Your task to perform on an android device: turn smart compose on in the gmail app Image 0: 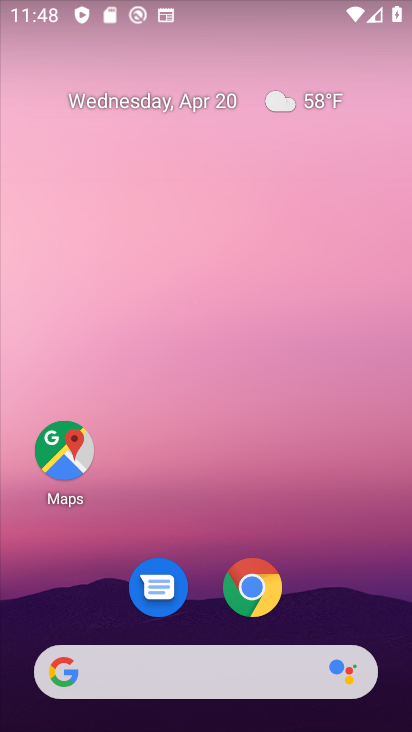
Step 0: drag from (209, 629) to (203, 41)
Your task to perform on an android device: turn smart compose on in the gmail app Image 1: 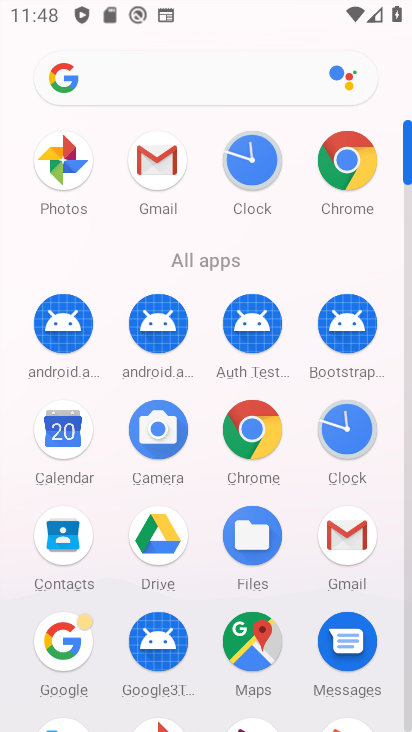
Step 1: click (343, 547)
Your task to perform on an android device: turn smart compose on in the gmail app Image 2: 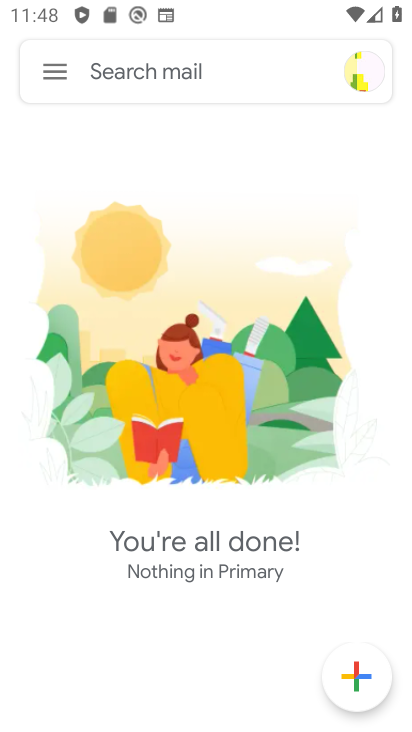
Step 2: click (46, 95)
Your task to perform on an android device: turn smart compose on in the gmail app Image 3: 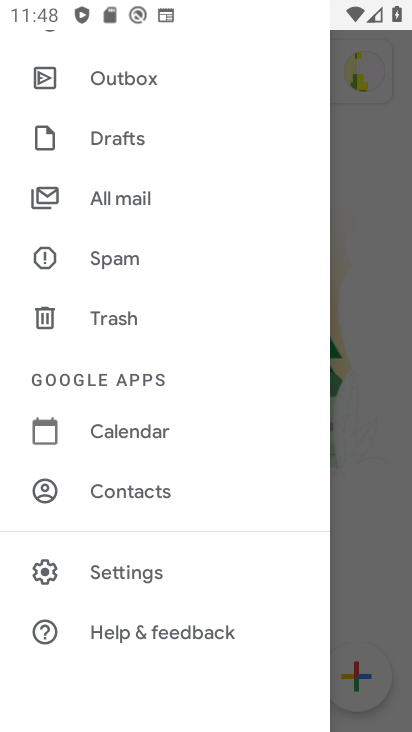
Step 3: click (147, 585)
Your task to perform on an android device: turn smart compose on in the gmail app Image 4: 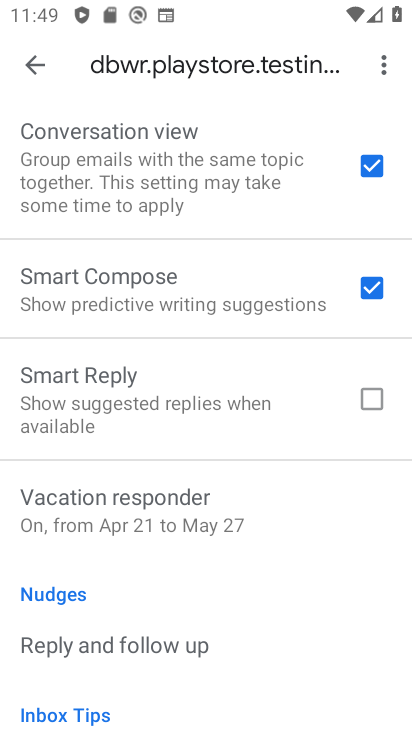
Step 4: task complete